Your task to perform on an android device: Go to accessibility settings Image 0: 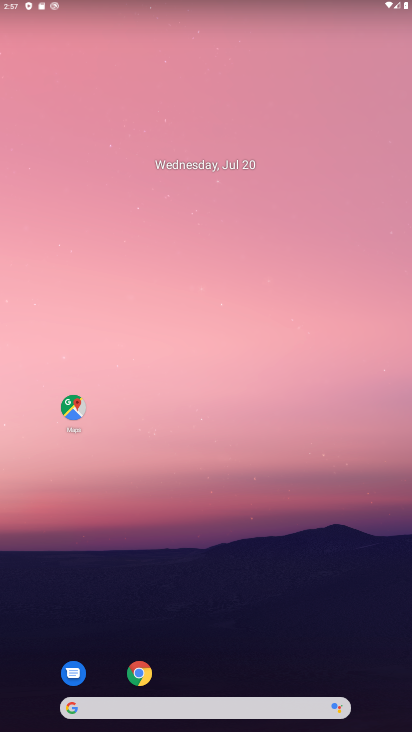
Step 0: drag from (309, 635) to (49, 234)
Your task to perform on an android device: Go to accessibility settings Image 1: 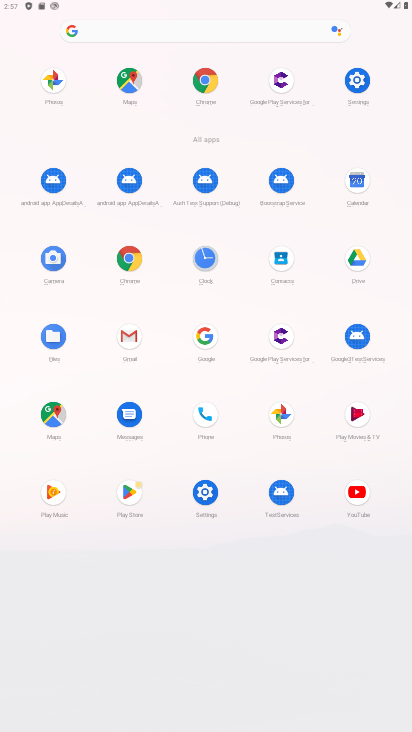
Step 1: click (358, 69)
Your task to perform on an android device: Go to accessibility settings Image 2: 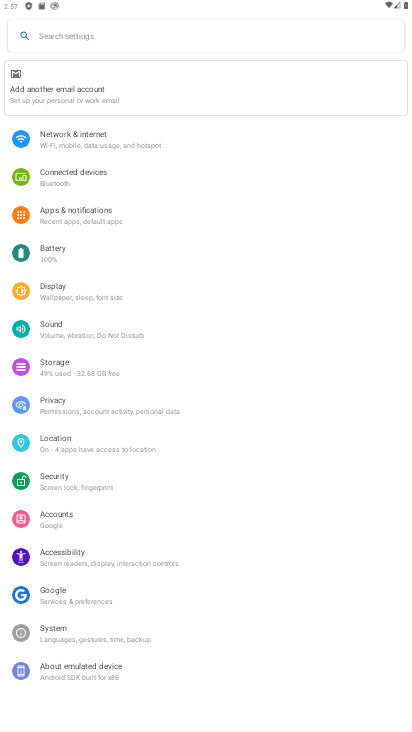
Step 2: click (117, 549)
Your task to perform on an android device: Go to accessibility settings Image 3: 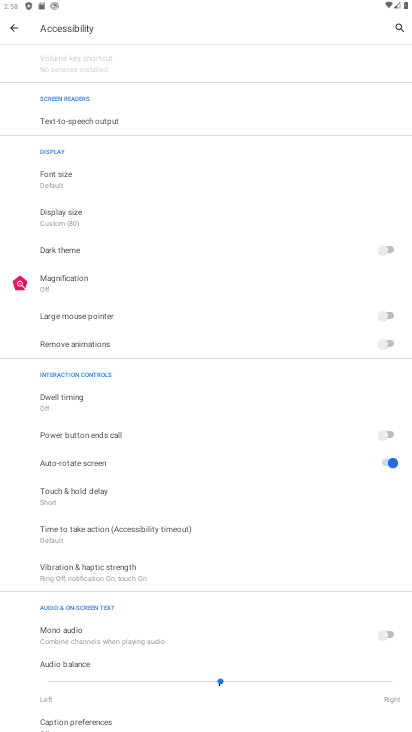
Step 3: task complete